Your task to perform on an android device: What's the weather? Image 0: 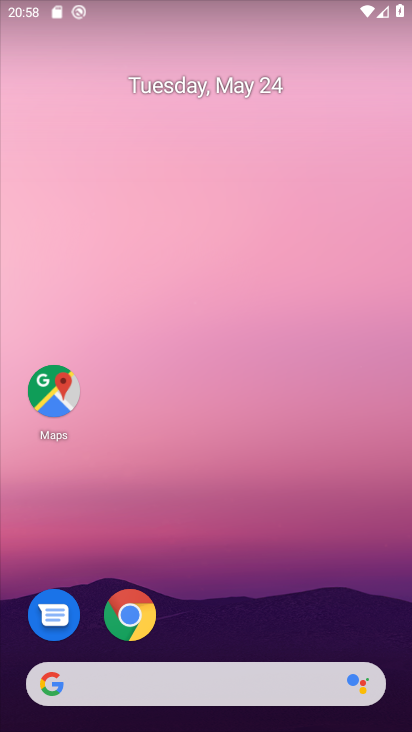
Step 0: click (138, 604)
Your task to perform on an android device: What's the weather? Image 1: 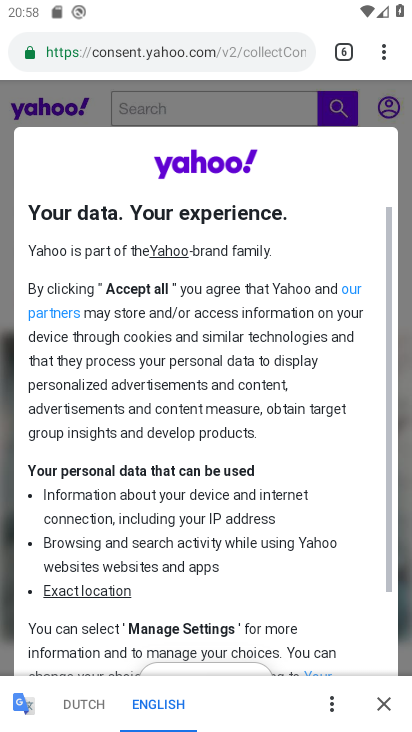
Step 1: click (377, 47)
Your task to perform on an android device: What's the weather? Image 2: 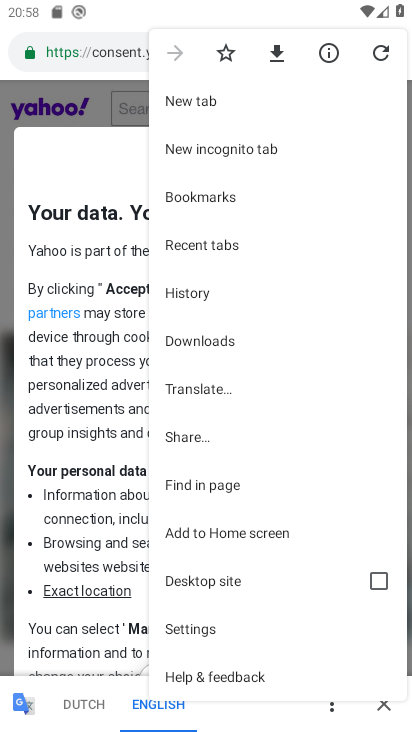
Step 2: click (205, 96)
Your task to perform on an android device: What's the weather? Image 3: 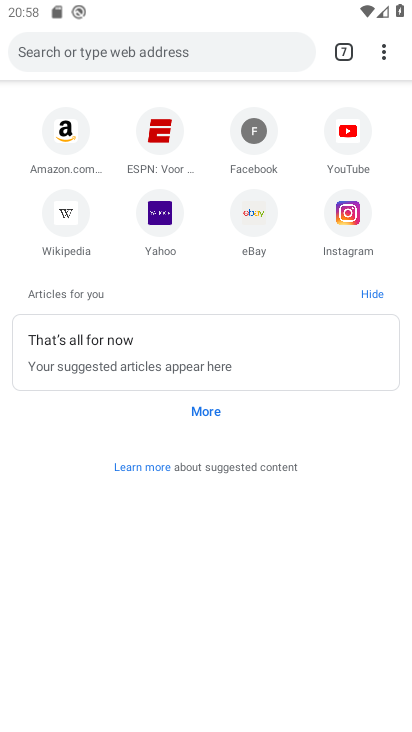
Step 3: click (127, 35)
Your task to perform on an android device: What's the weather? Image 4: 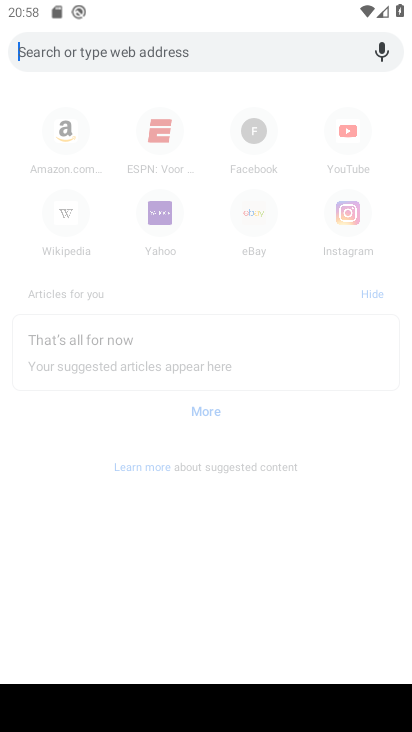
Step 4: type "What's the weather?"
Your task to perform on an android device: What's the weather? Image 5: 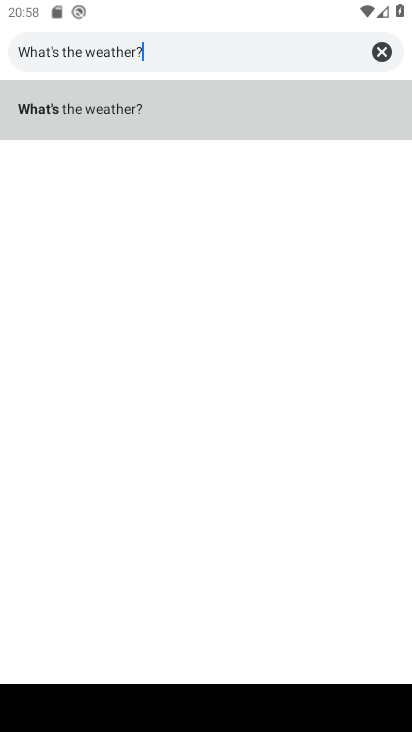
Step 5: click (189, 114)
Your task to perform on an android device: What's the weather? Image 6: 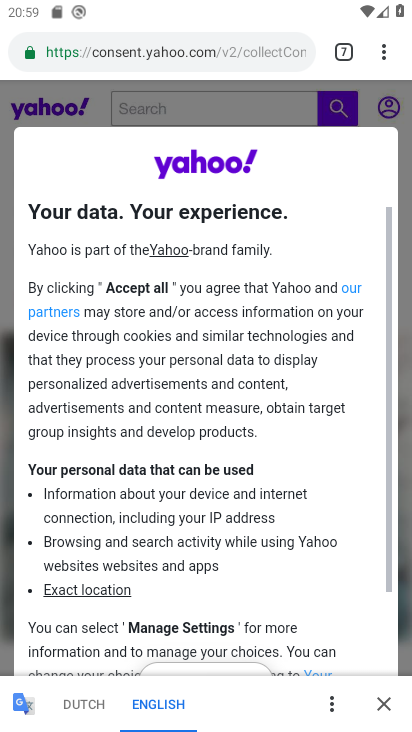
Step 6: task complete